Your task to perform on an android device: Go to network settings Image 0: 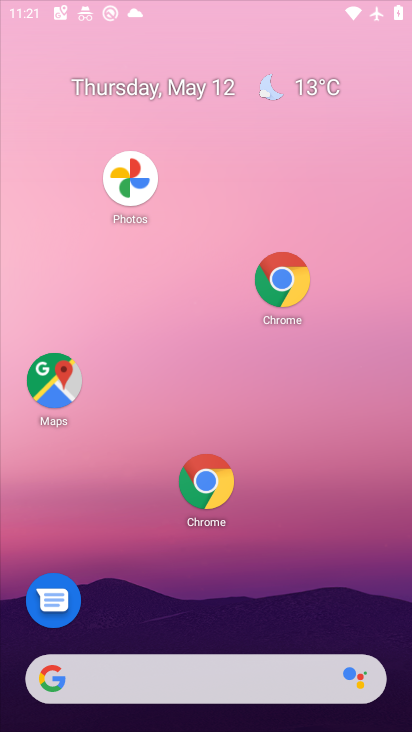
Step 0: drag from (376, 584) to (173, 79)
Your task to perform on an android device: Go to network settings Image 1: 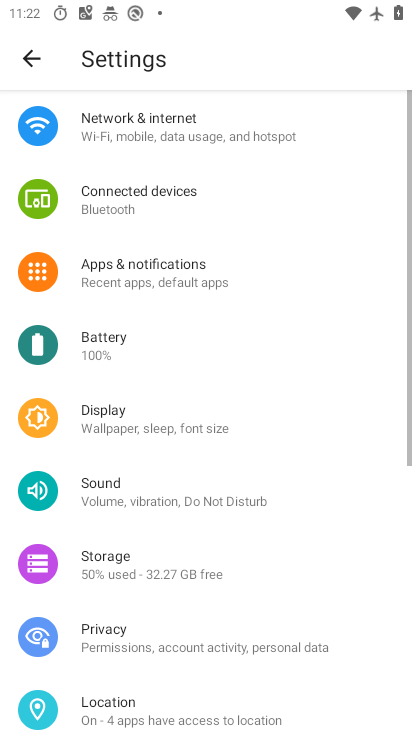
Step 1: click (159, 130)
Your task to perform on an android device: Go to network settings Image 2: 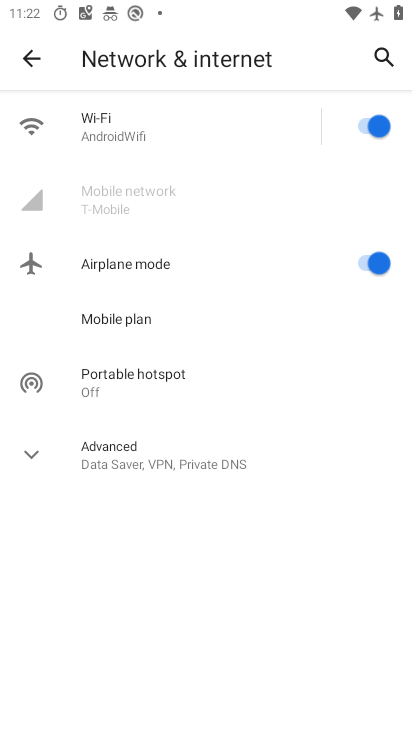
Step 2: click (159, 130)
Your task to perform on an android device: Go to network settings Image 3: 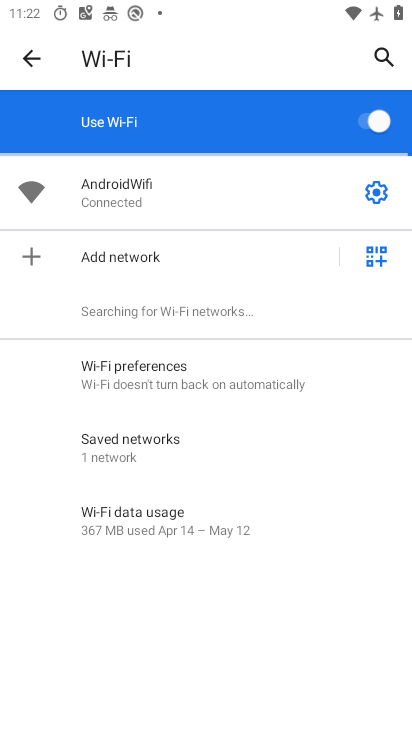
Step 3: click (22, 59)
Your task to perform on an android device: Go to network settings Image 4: 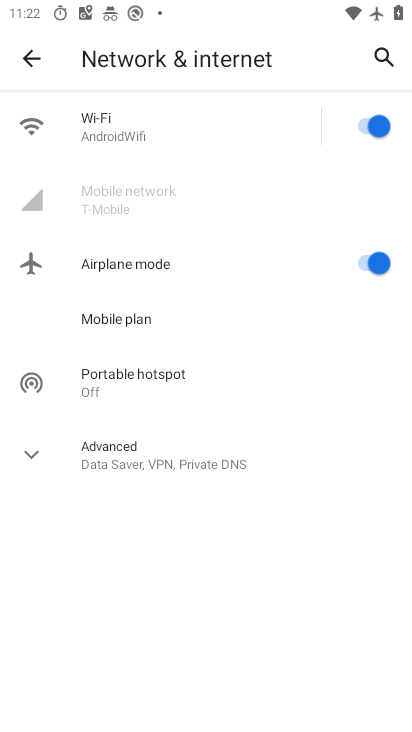
Step 4: task complete